Your task to perform on an android device: delete browsing data in the chrome app Image 0: 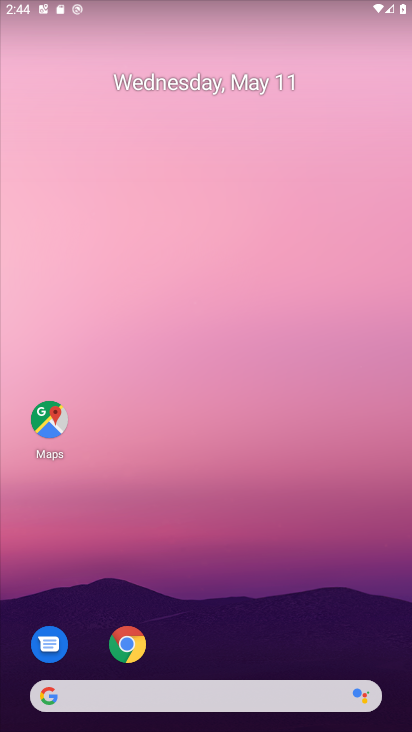
Step 0: click (122, 639)
Your task to perform on an android device: delete browsing data in the chrome app Image 1: 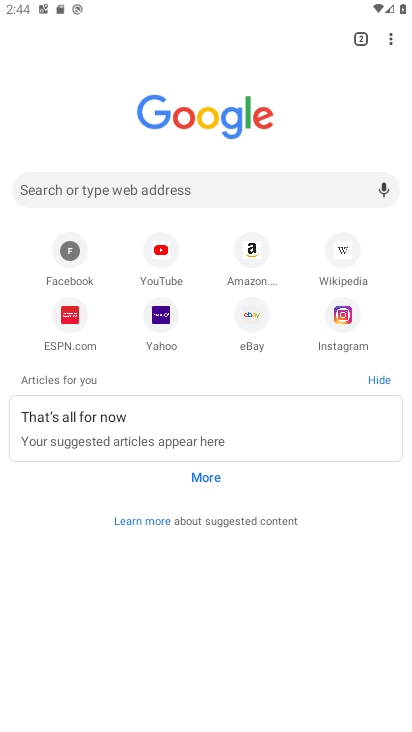
Step 1: click (389, 41)
Your task to perform on an android device: delete browsing data in the chrome app Image 2: 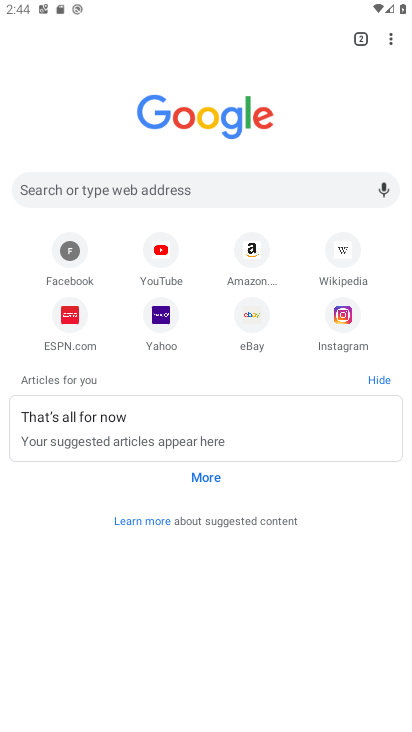
Step 2: task complete